Your task to perform on an android device: Open the phone app and click the voicemail tab. Image 0: 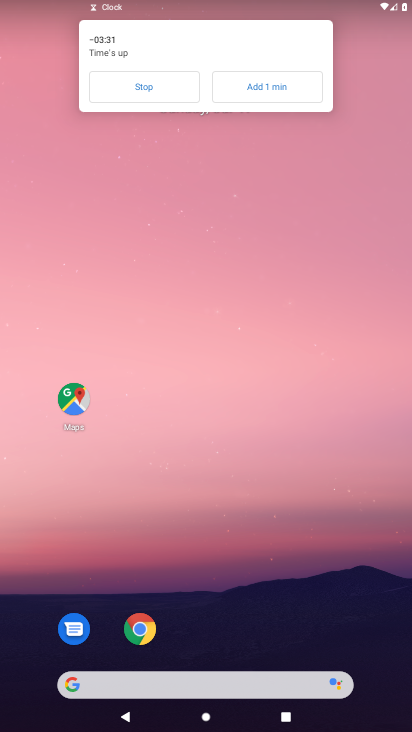
Step 0: drag from (238, 720) to (215, 162)
Your task to perform on an android device: Open the phone app and click the voicemail tab. Image 1: 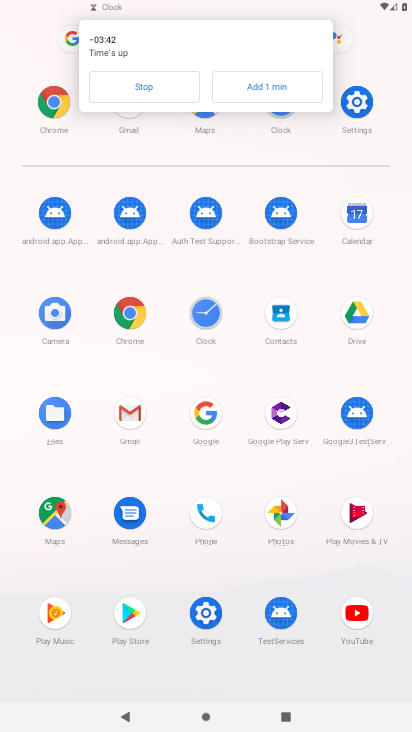
Step 1: click (207, 515)
Your task to perform on an android device: Open the phone app and click the voicemail tab. Image 2: 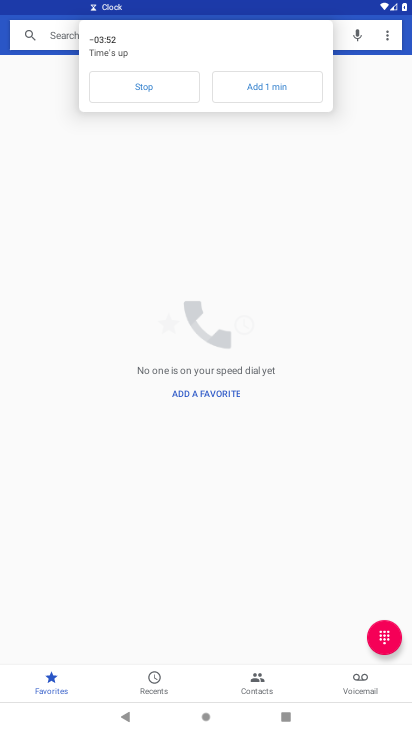
Step 2: click (360, 683)
Your task to perform on an android device: Open the phone app and click the voicemail tab. Image 3: 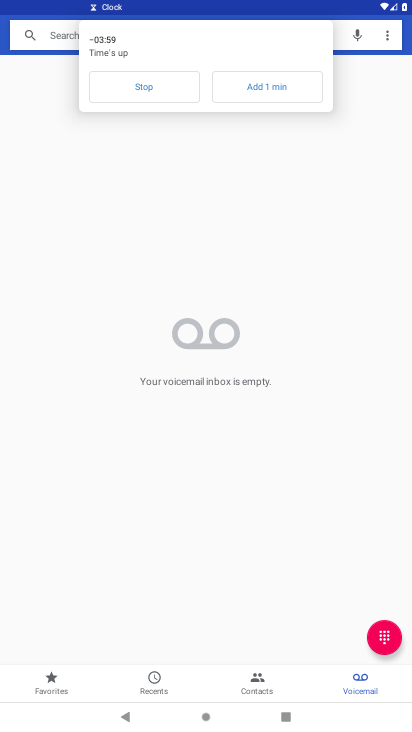
Step 3: task complete